Your task to perform on an android device: search for starred emails in the gmail app Image 0: 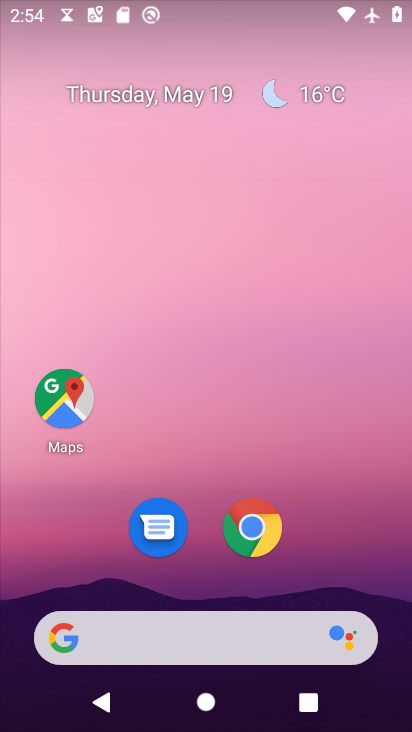
Step 0: drag from (331, 562) to (216, 58)
Your task to perform on an android device: search for starred emails in the gmail app Image 1: 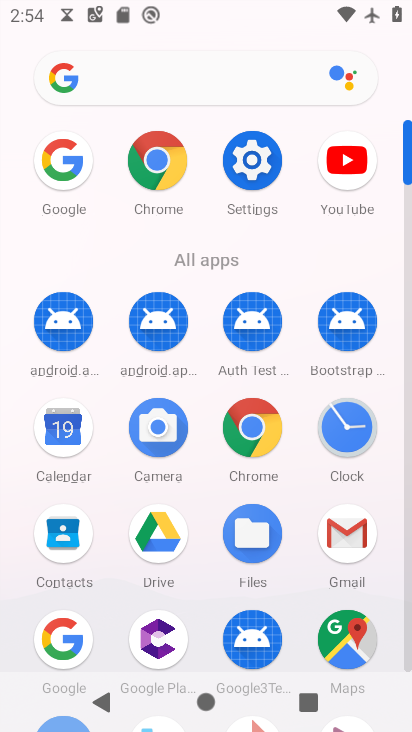
Step 1: click (343, 530)
Your task to perform on an android device: search for starred emails in the gmail app Image 2: 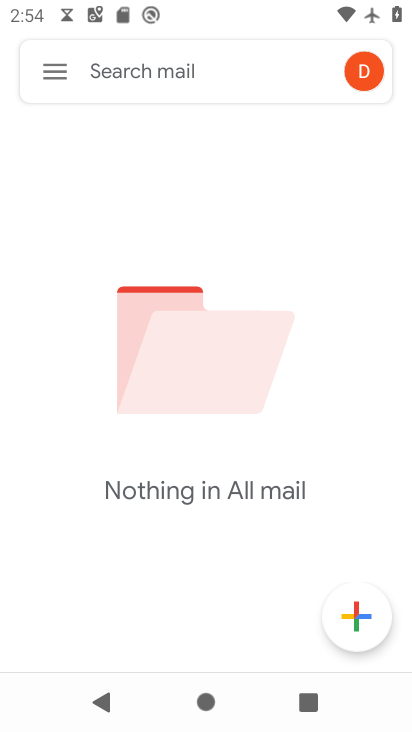
Step 2: click (130, 78)
Your task to perform on an android device: search for starred emails in the gmail app Image 3: 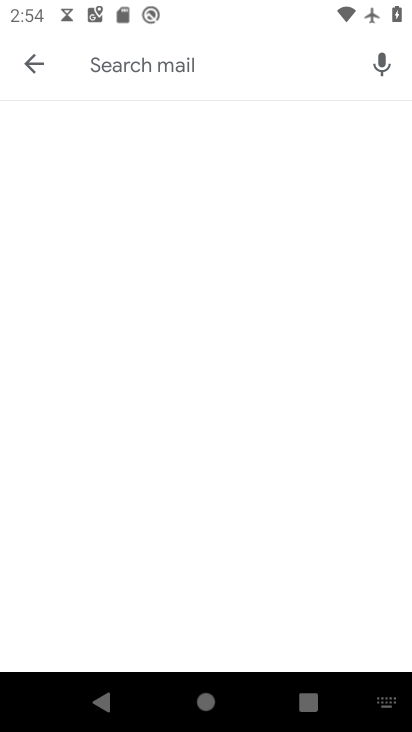
Step 3: type "starred"
Your task to perform on an android device: search for starred emails in the gmail app Image 4: 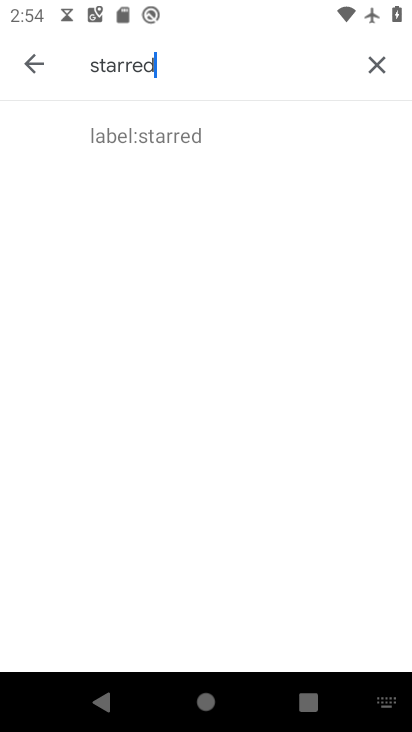
Step 4: click (135, 143)
Your task to perform on an android device: search for starred emails in the gmail app Image 5: 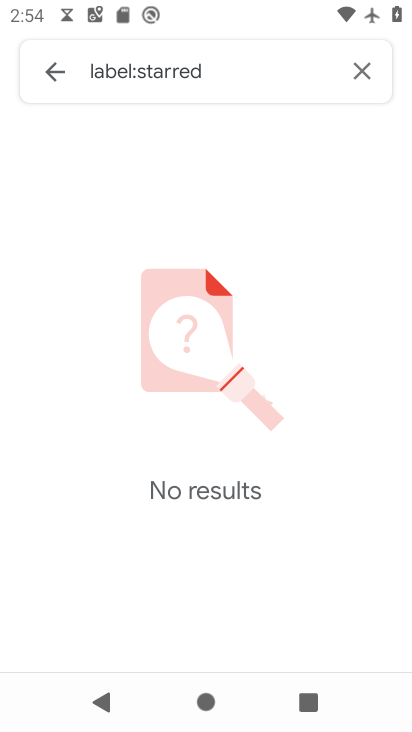
Step 5: task complete